Your task to perform on an android device: Turn off the flashlight Image 0: 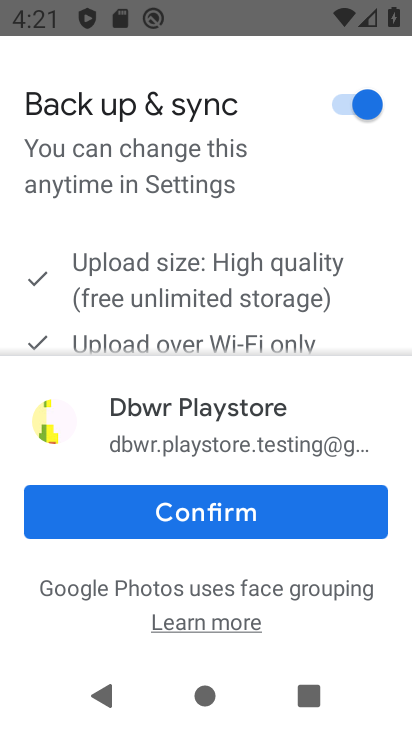
Step 0: press home button
Your task to perform on an android device: Turn off the flashlight Image 1: 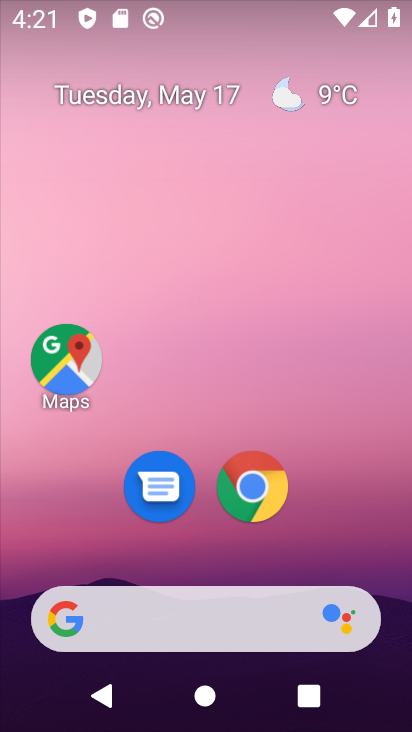
Step 1: drag from (222, 13) to (236, 541)
Your task to perform on an android device: Turn off the flashlight Image 2: 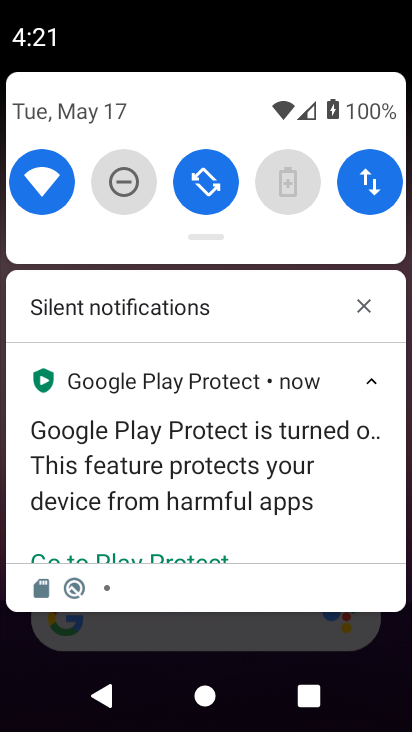
Step 2: drag from (245, 209) to (235, 660)
Your task to perform on an android device: Turn off the flashlight Image 3: 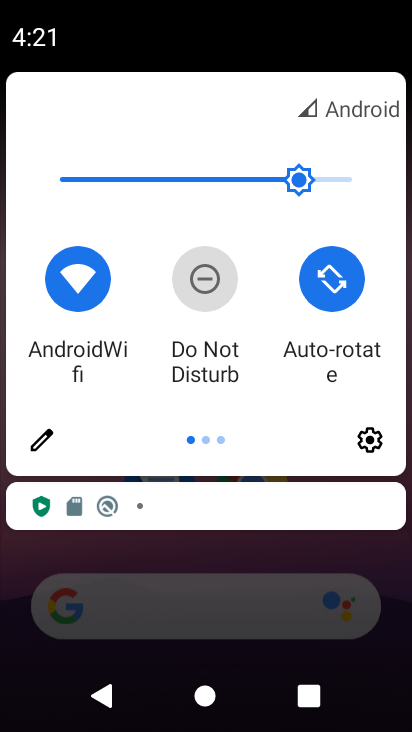
Step 3: click (41, 436)
Your task to perform on an android device: Turn off the flashlight Image 4: 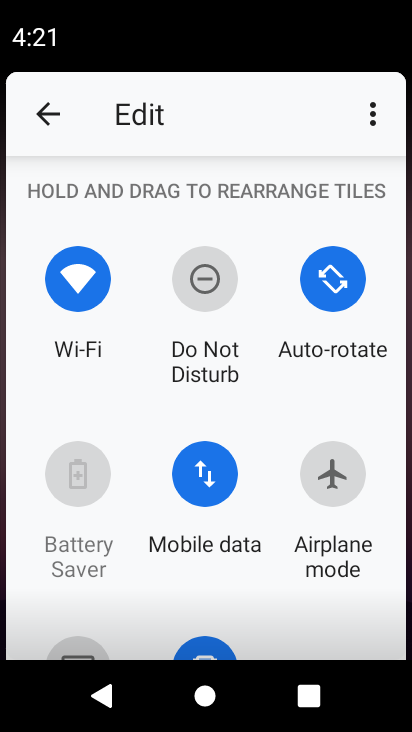
Step 4: task complete